Your task to perform on an android device: open app "Facebook Lite" (install if not already installed) Image 0: 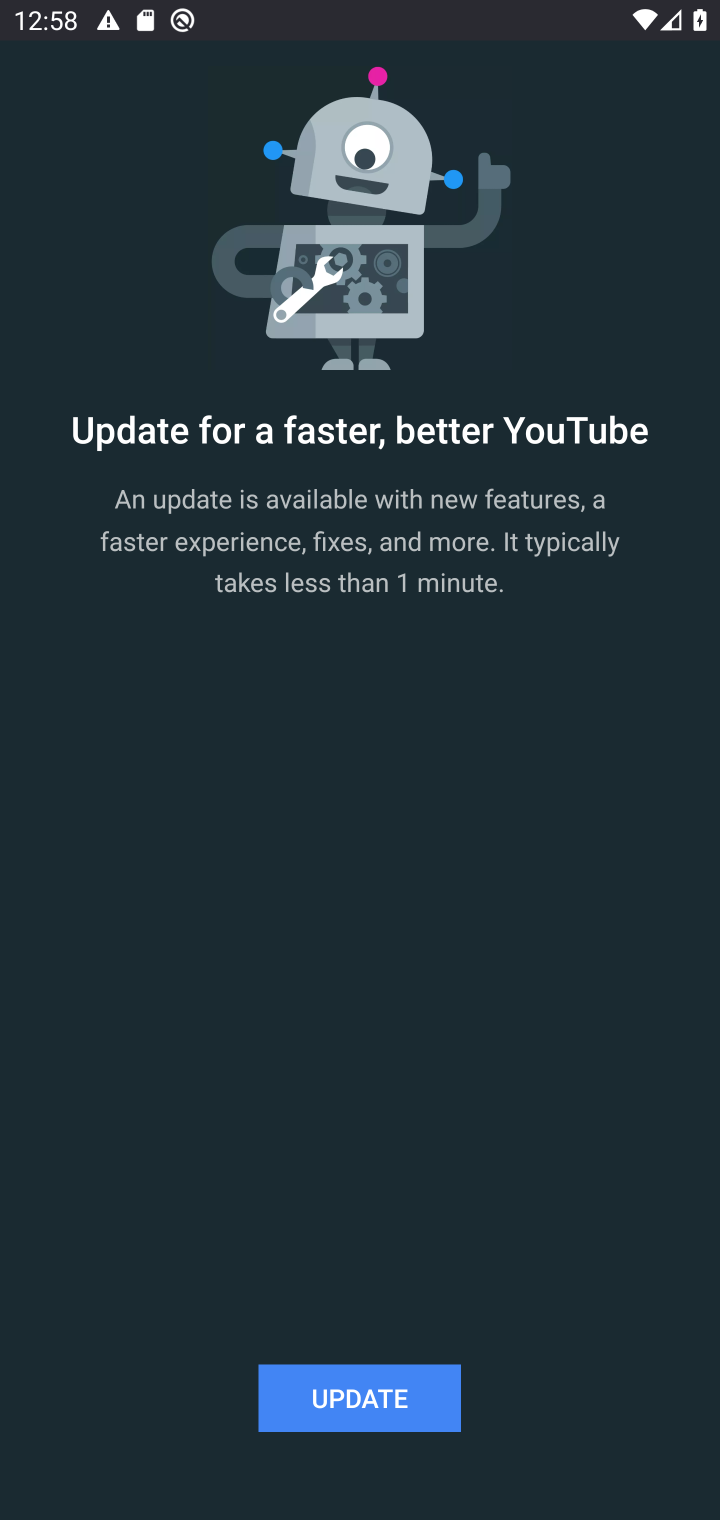
Step 0: press back button
Your task to perform on an android device: open app "Facebook Lite" (install if not already installed) Image 1: 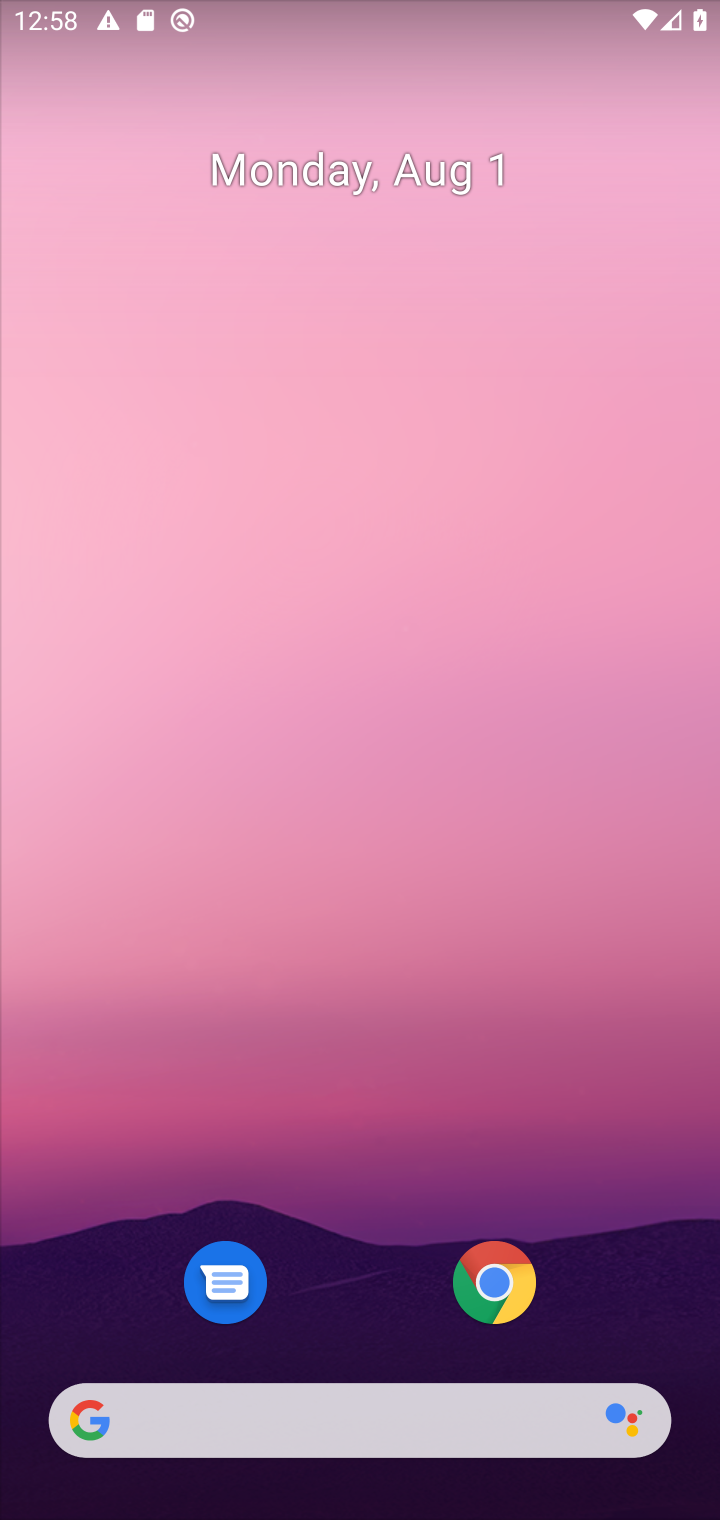
Step 1: drag from (383, 1405) to (392, 422)
Your task to perform on an android device: open app "Facebook Lite" (install if not already installed) Image 2: 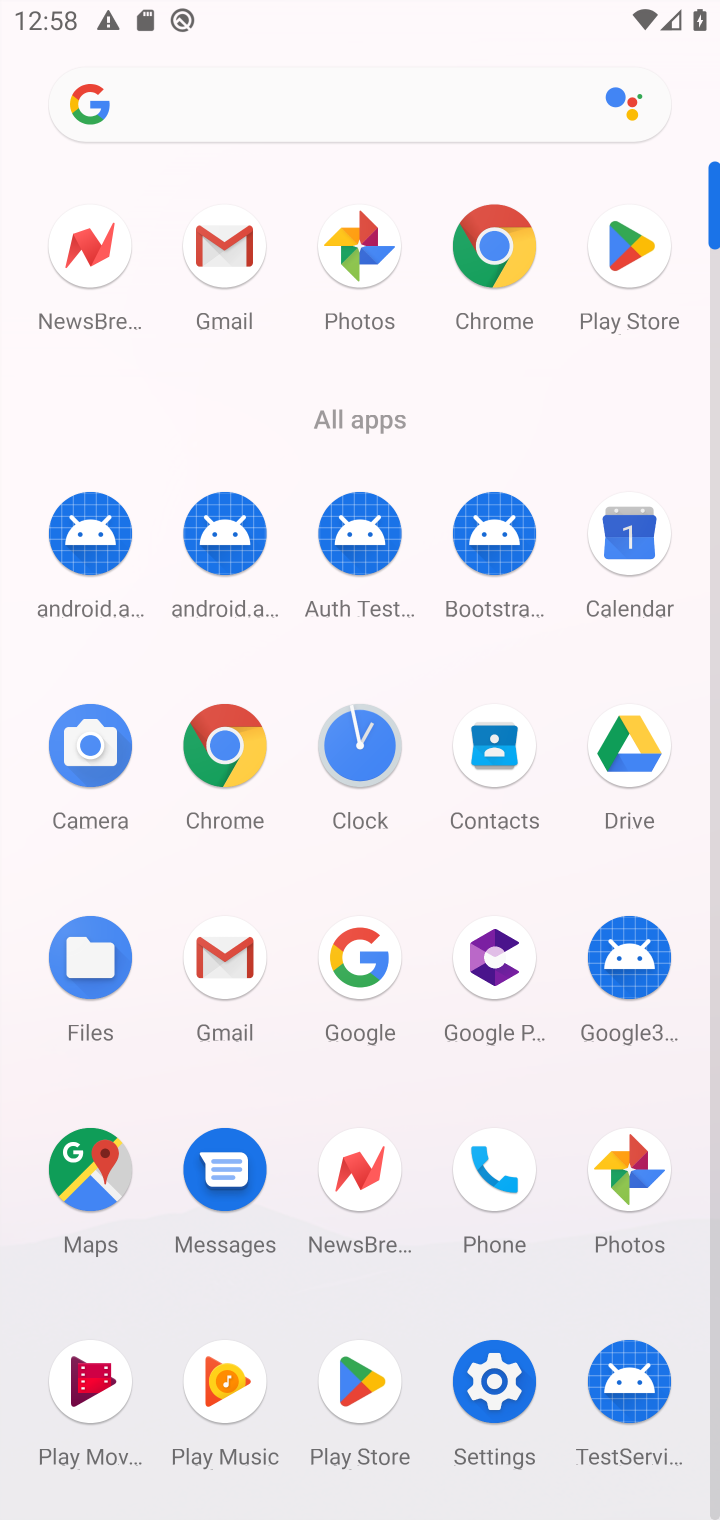
Step 2: click (344, 1378)
Your task to perform on an android device: open app "Facebook Lite" (install if not already installed) Image 3: 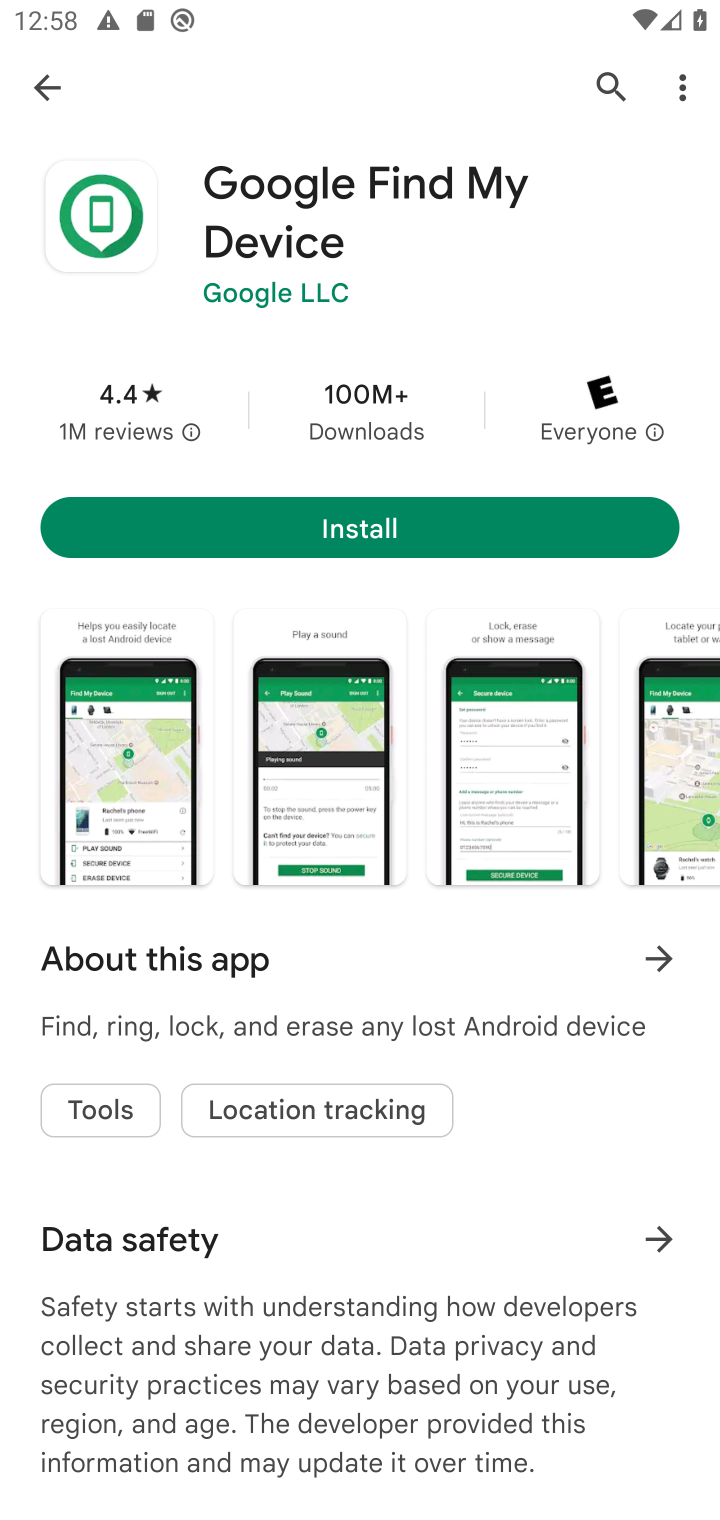
Step 3: click (31, 107)
Your task to perform on an android device: open app "Facebook Lite" (install if not already installed) Image 4: 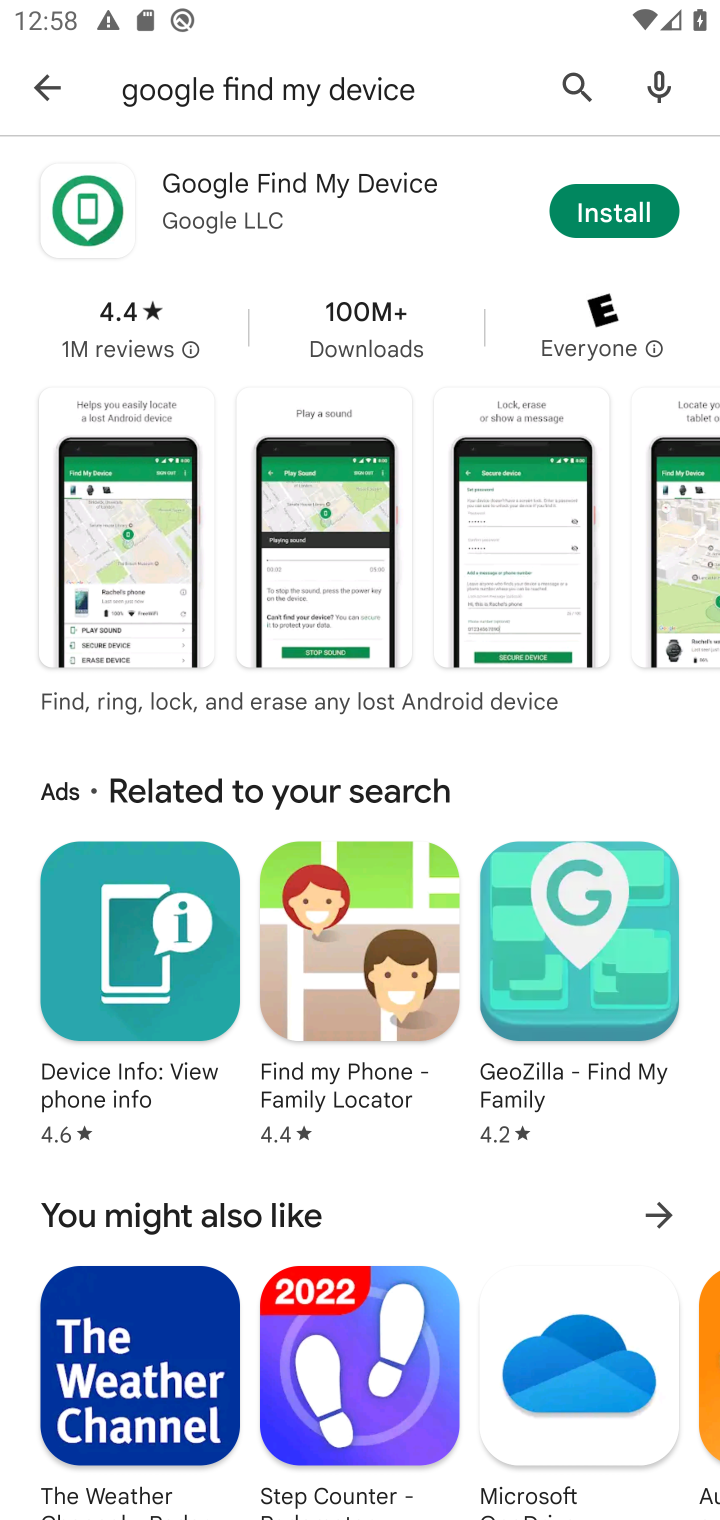
Step 4: click (25, 84)
Your task to perform on an android device: open app "Facebook Lite" (install if not already installed) Image 5: 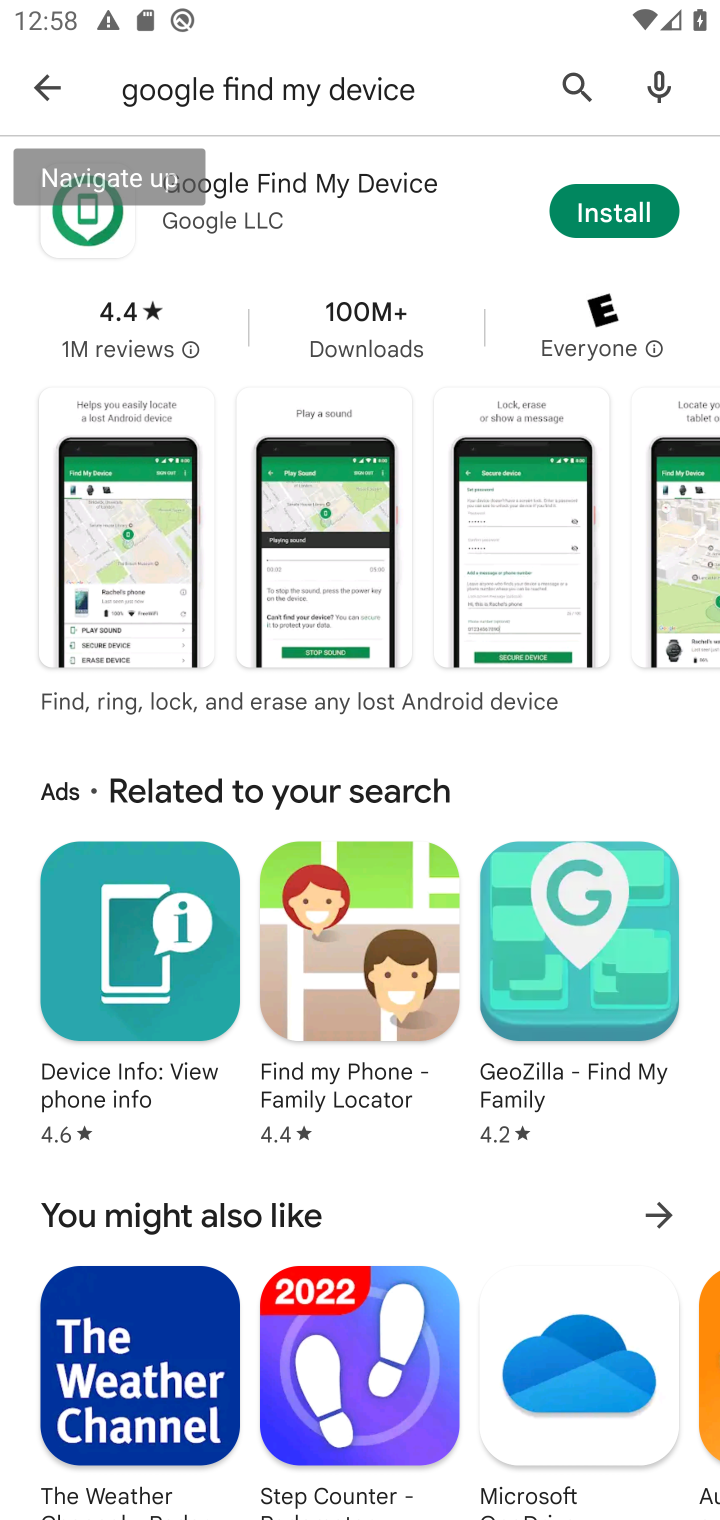
Step 5: click (26, 87)
Your task to perform on an android device: open app "Facebook Lite" (install if not already installed) Image 6: 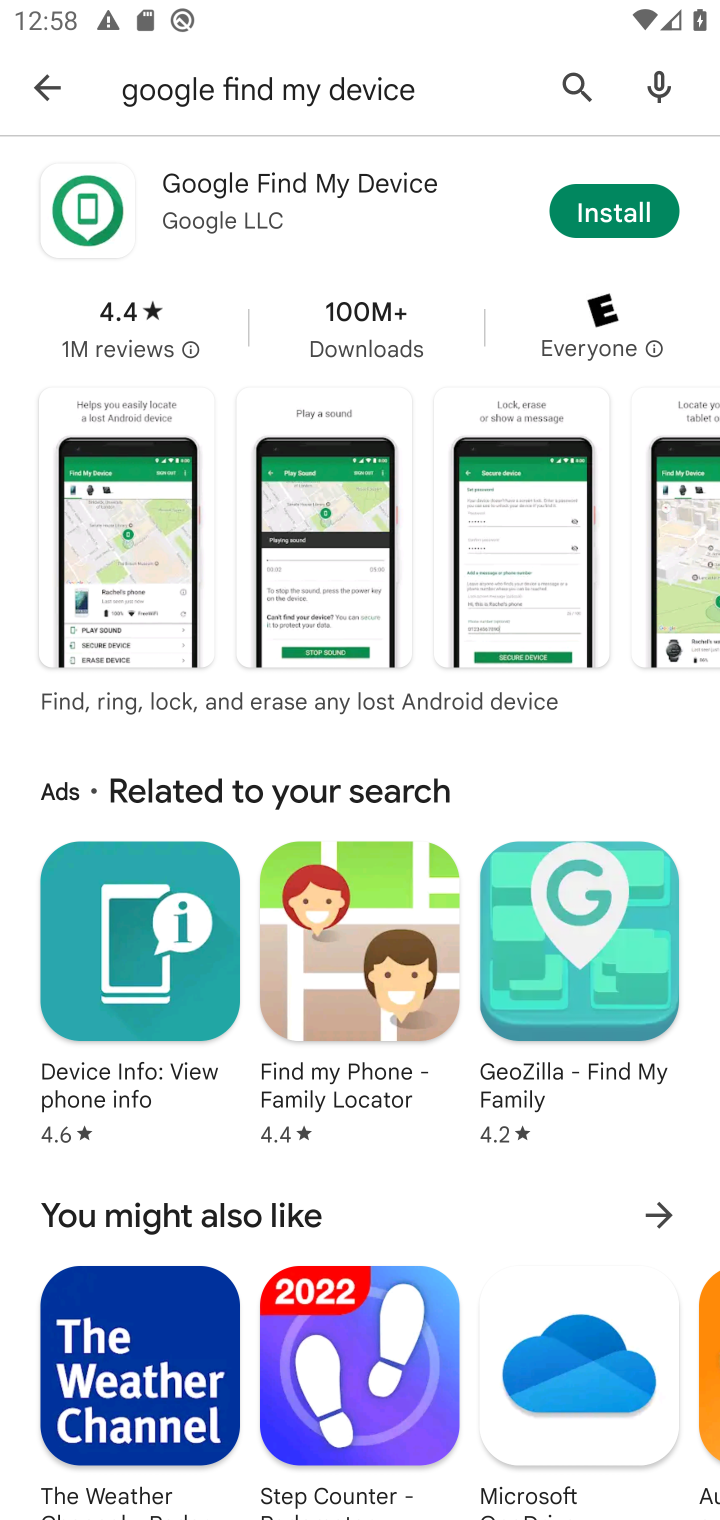
Step 6: click (47, 99)
Your task to perform on an android device: open app "Facebook Lite" (install if not already installed) Image 7: 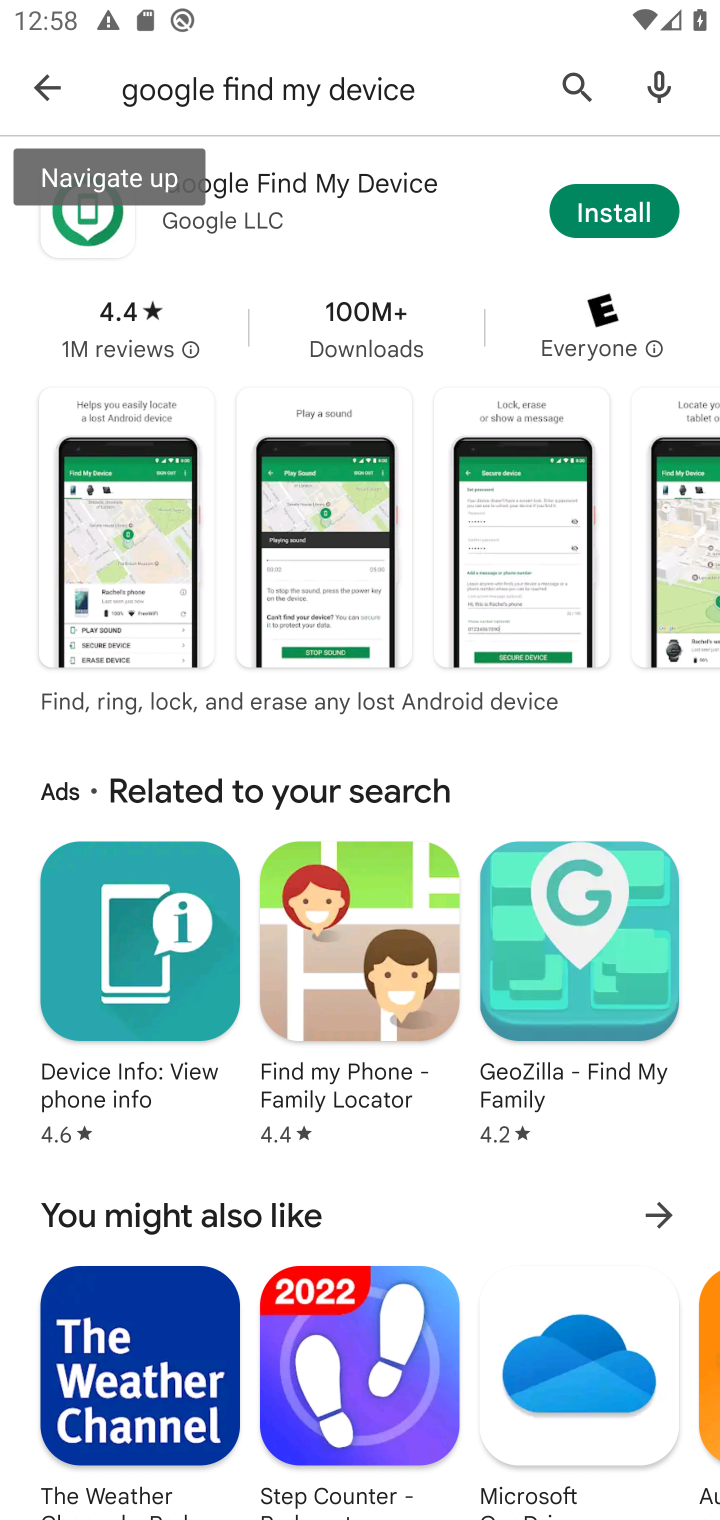
Step 7: click (47, 99)
Your task to perform on an android device: open app "Facebook Lite" (install if not already installed) Image 8: 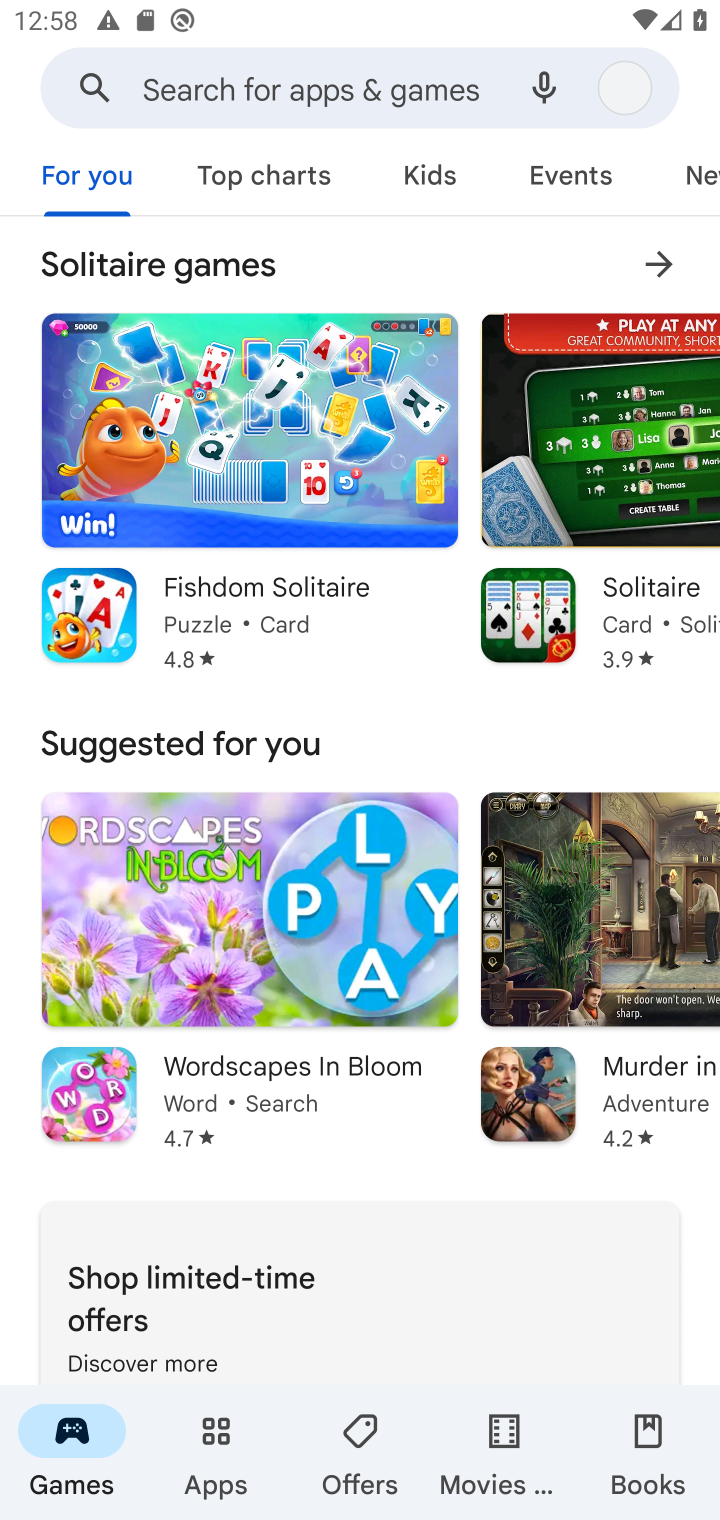
Step 8: click (180, 73)
Your task to perform on an android device: open app "Facebook Lite" (install if not already installed) Image 9: 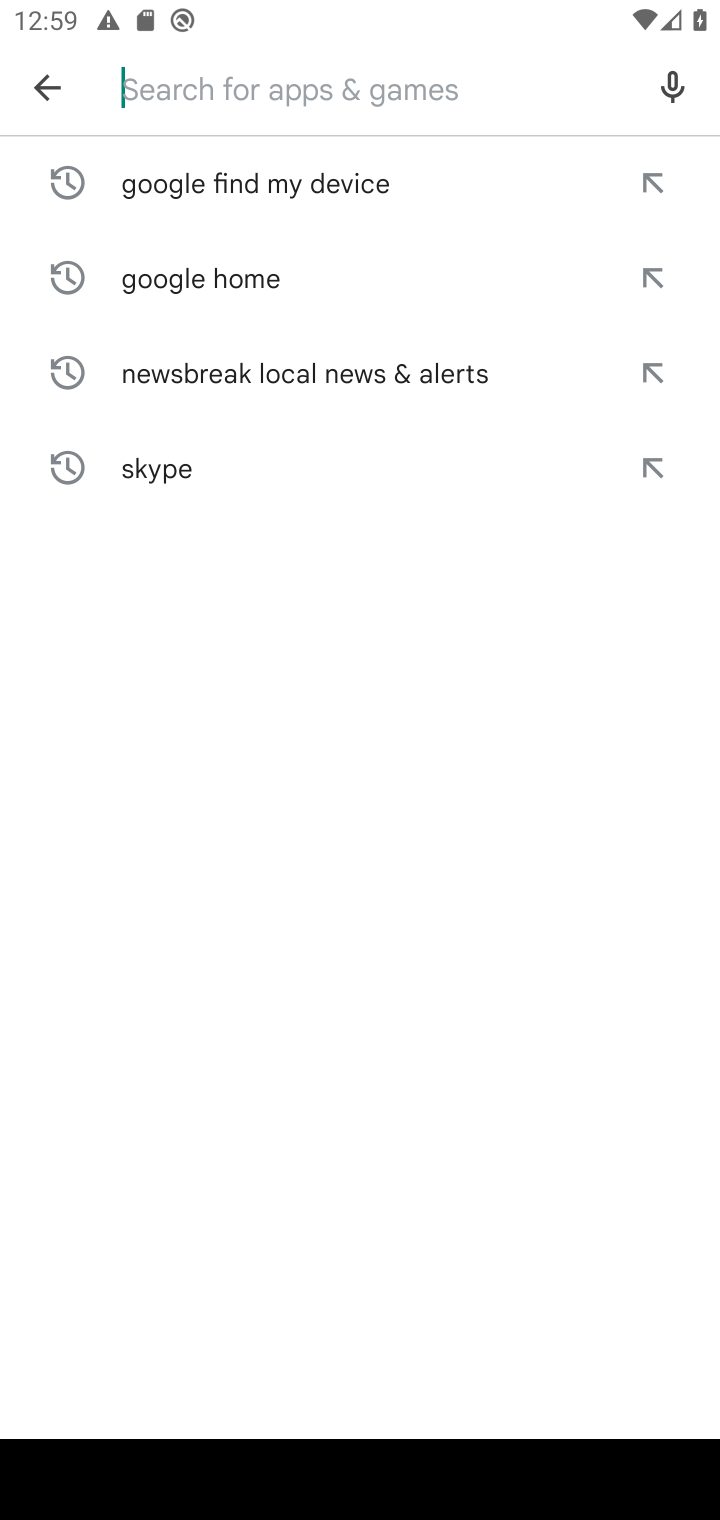
Step 9: type "Facebook Lite"
Your task to perform on an android device: open app "Facebook Lite" (install if not already installed) Image 10: 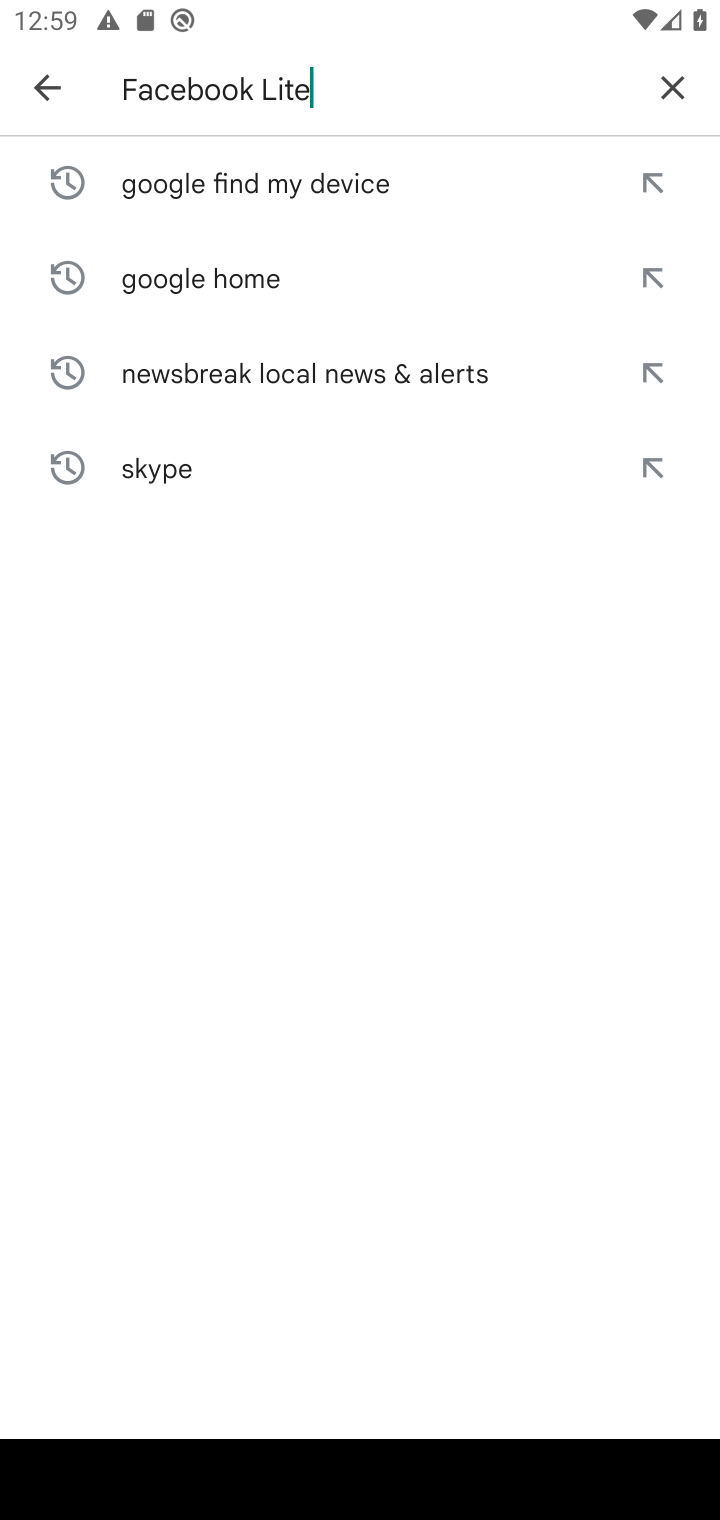
Step 10: type ""
Your task to perform on an android device: open app "Facebook Lite" (install if not already installed) Image 11: 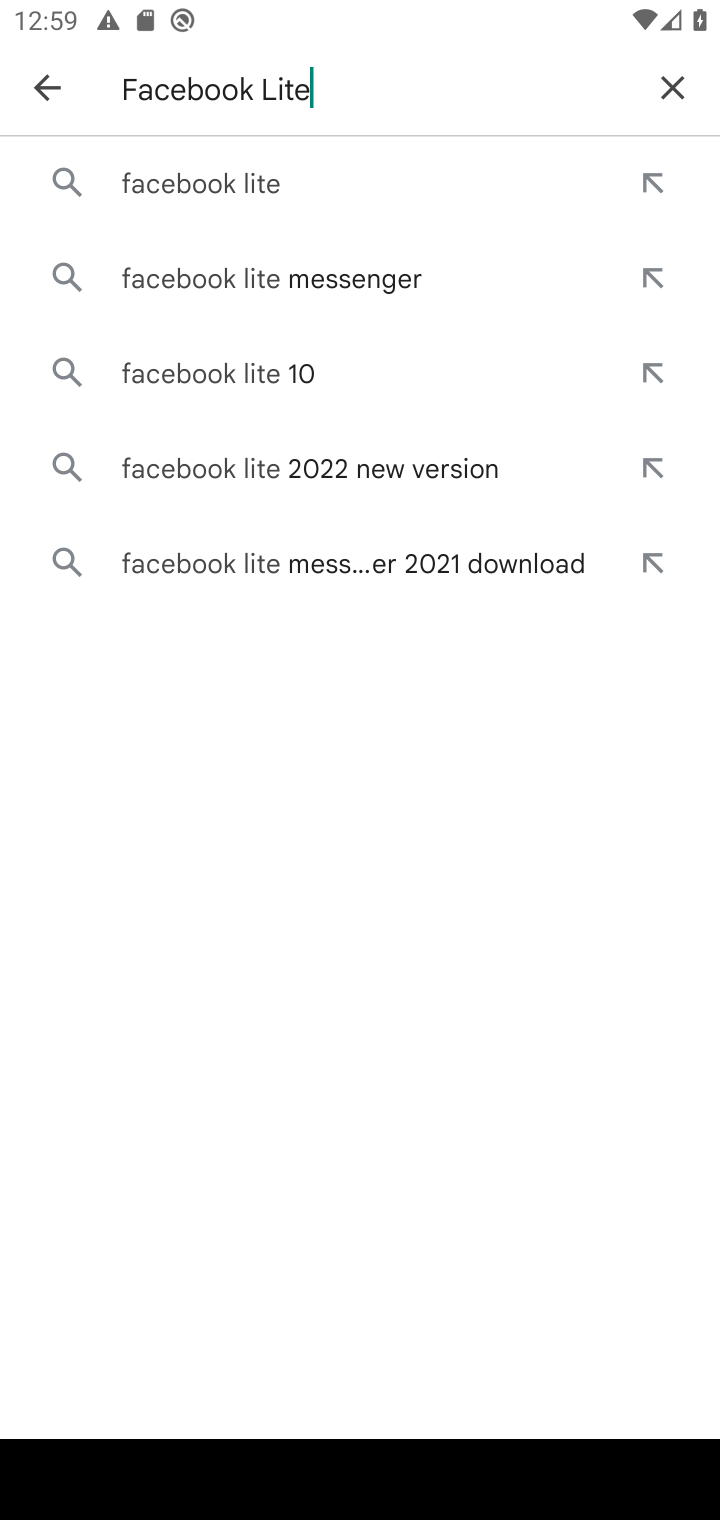
Step 11: click (143, 193)
Your task to perform on an android device: open app "Facebook Lite" (install if not already installed) Image 12: 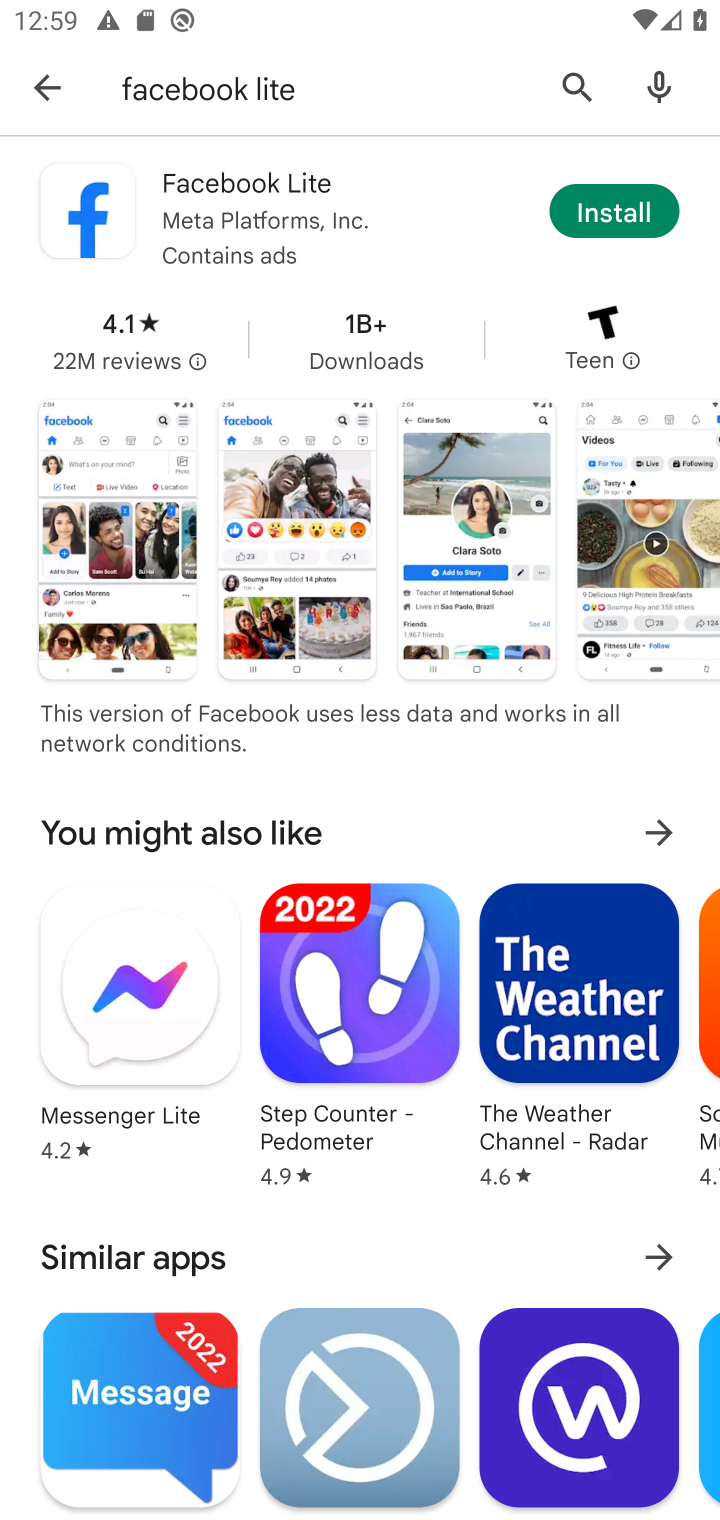
Step 12: click (651, 224)
Your task to perform on an android device: open app "Facebook Lite" (install if not already installed) Image 13: 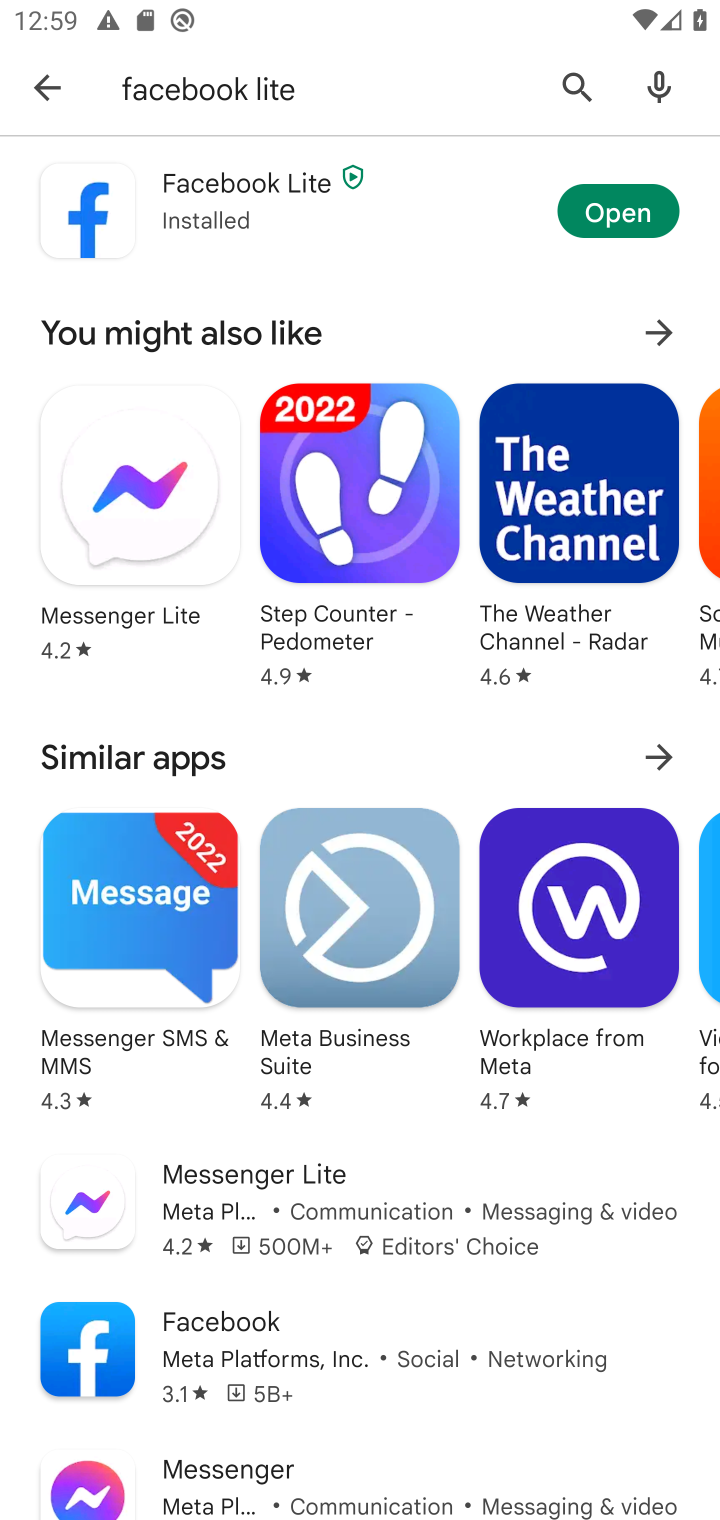
Step 13: click (606, 185)
Your task to perform on an android device: open app "Facebook Lite" (install if not already installed) Image 14: 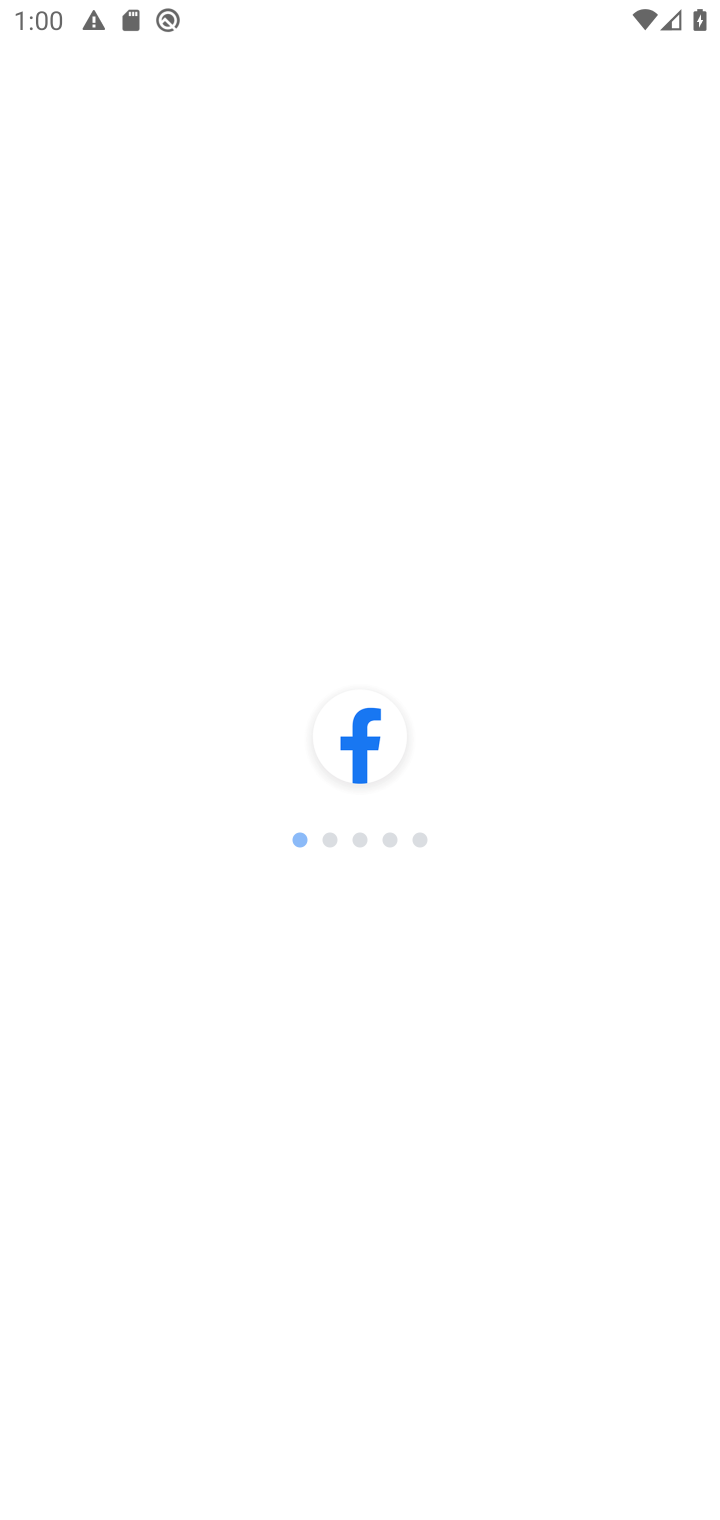
Step 14: task complete